Your task to perform on an android device: manage bookmarks in the chrome app Image 0: 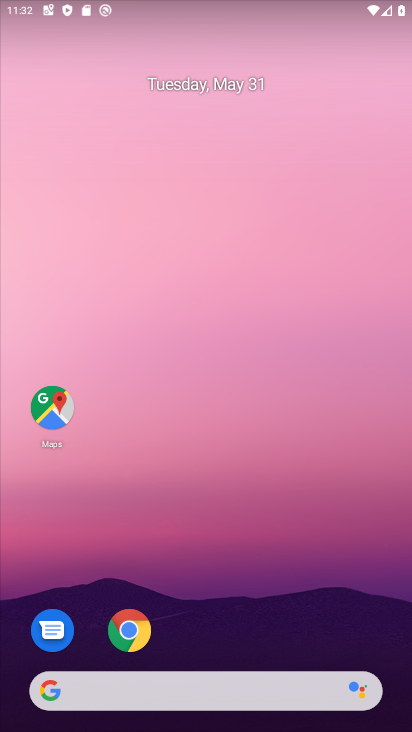
Step 0: click (128, 640)
Your task to perform on an android device: manage bookmarks in the chrome app Image 1: 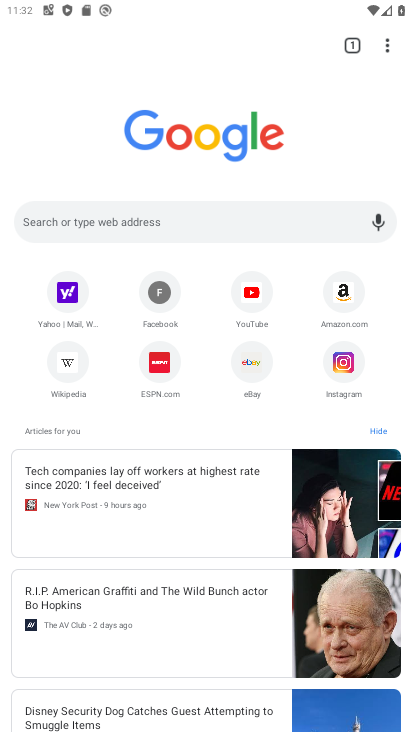
Step 1: task complete